Your task to perform on an android device: Turn on the flashlight Image 0: 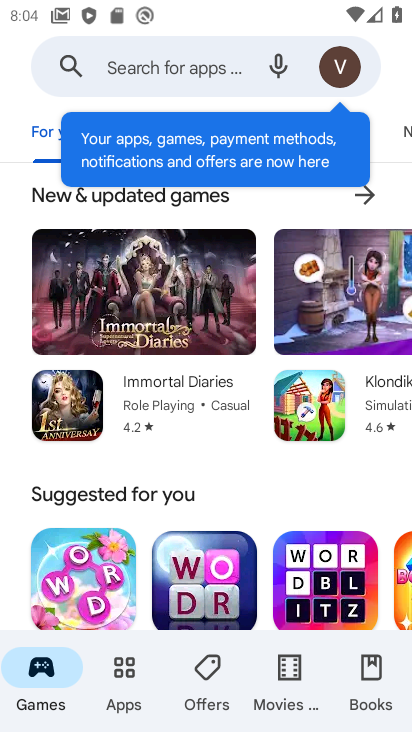
Step 0: press home button
Your task to perform on an android device: Turn on the flashlight Image 1: 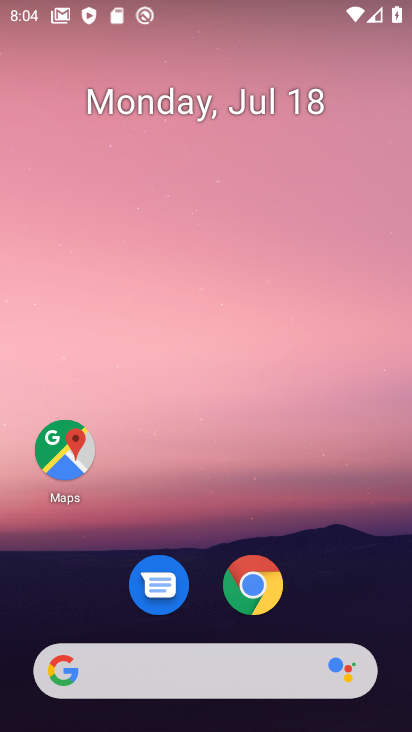
Step 1: task complete